Your task to perform on an android device: Open settings on Google Maps Image 0: 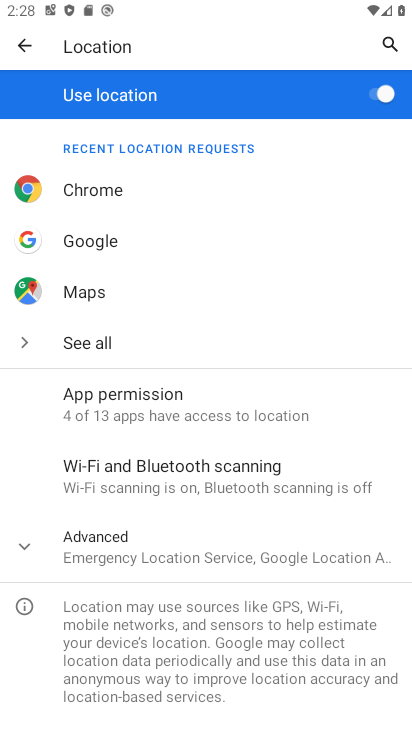
Step 0: press home button
Your task to perform on an android device: Open settings on Google Maps Image 1: 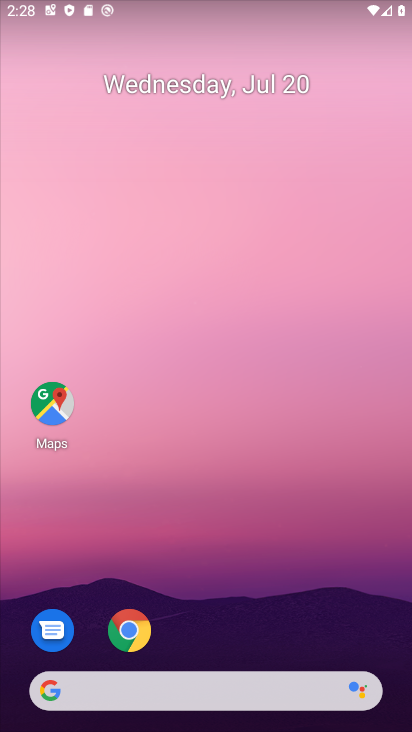
Step 1: drag from (314, 575) to (317, 143)
Your task to perform on an android device: Open settings on Google Maps Image 2: 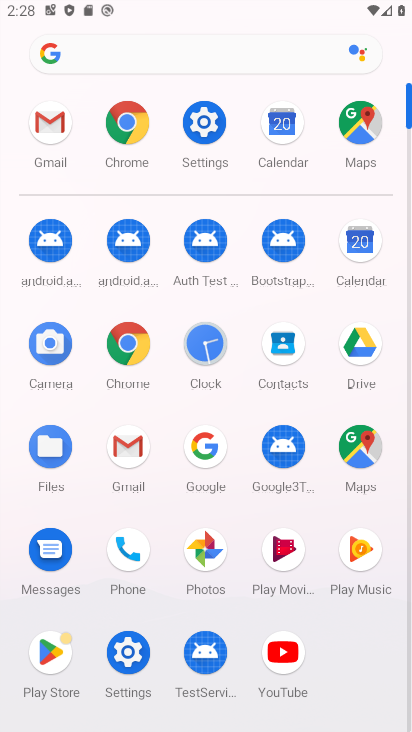
Step 2: click (373, 124)
Your task to perform on an android device: Open settings on Google Maps Image 3: 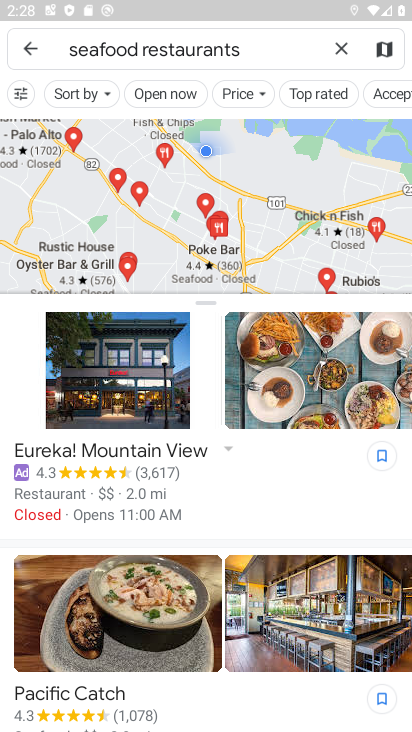
Step 3: press back button
Your task to perform on an android device: Open settings on Google Maps Image 4: 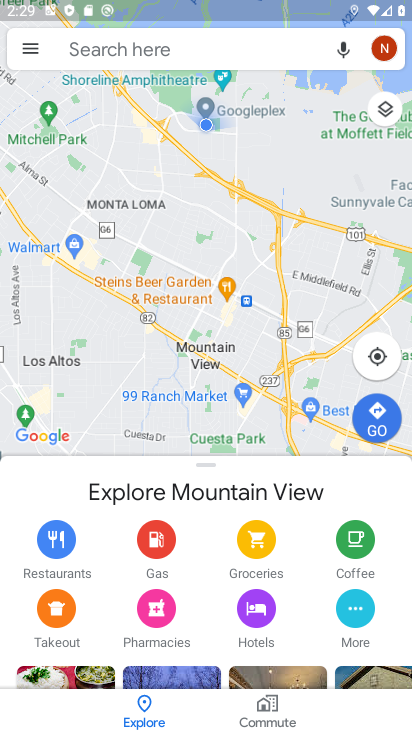
Step 4: click (25, 54)
Your task to perform on an android device: Open settings on Google Maps Image 5: 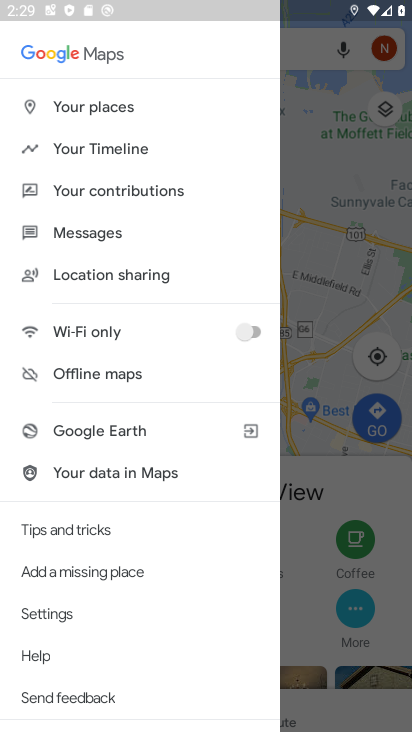
Step 5: click (69, 609)
Your task to perform on an android device: Open settings on Google Maps Image 6: 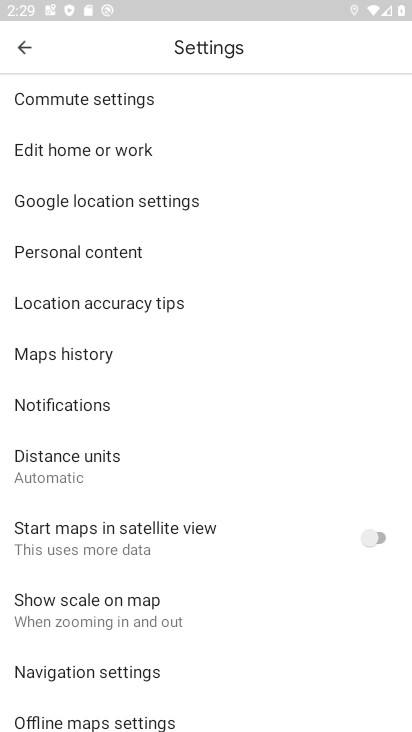
Step 6: task complete